Your task to perform on an android device: Go to Yahoo.com Image 0: 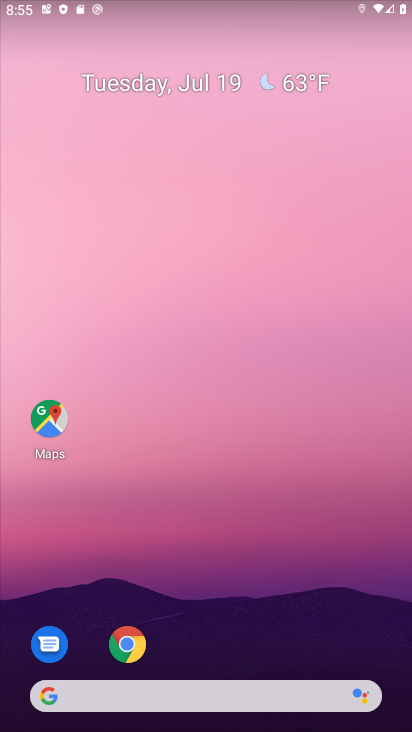
Step 0: drag from (147, 359) to (147, 282)
Your task to perform on an android device: Go to Yahoo.com Image 1: 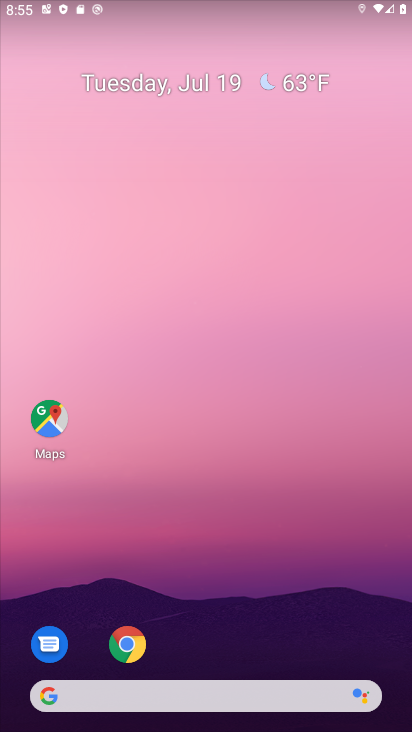
Step 1: drag from (204, 696) to (118, 132)
Your task to perform on an android device: Go to Yahoo.com Image 2: 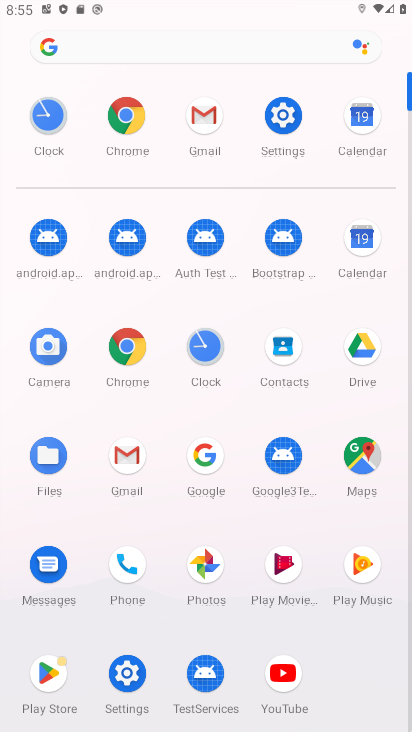
Step 2: click (127, 109)
Your task to perform on an android device: Go to Yahoo.com Image 3: 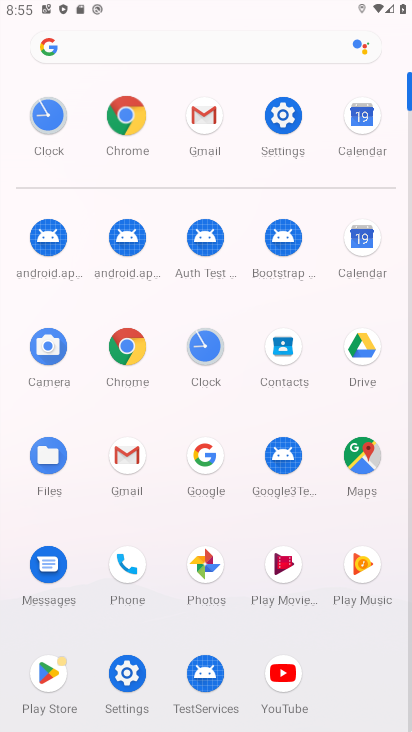
Step 3: click (127, 107)
Your task to perform on an android device: Go to Yahoo.com Image 4: 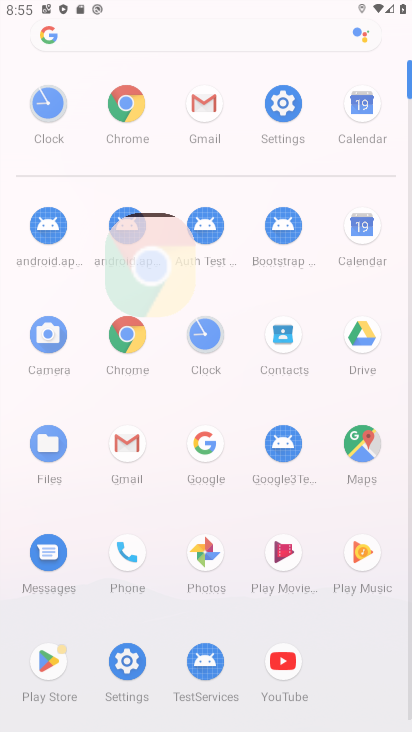
Step 4: click (127, 107)
Your task to perform on an android device: Go to Yahoo.com Image 5: 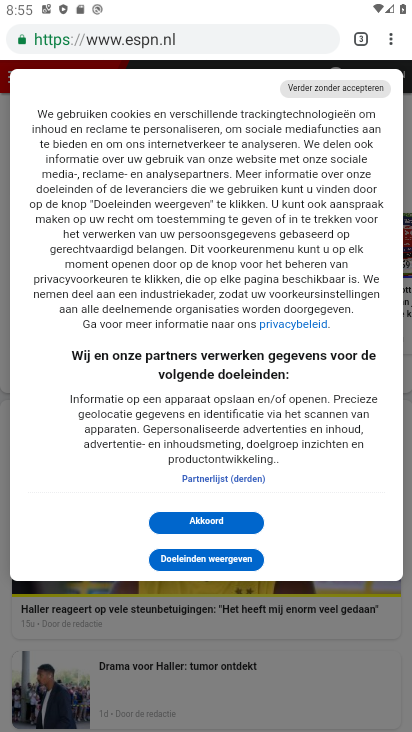
Step 5: drag from (387, 41) to (249, 75)
Your task to perform on an android device: Go to Yahoo.com Image 6: 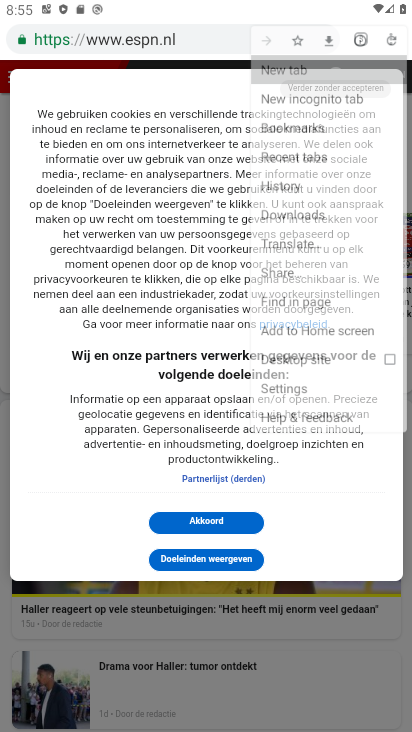
Step 6: click (261, 75)
Your task to perform on an android device: Go to Yahoo.com Image 7: 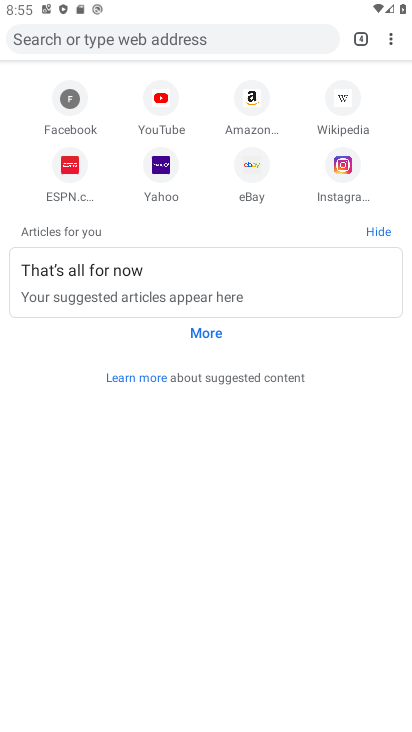
Step 7: click (171, 161)
Your task to perform on an android device: Go to Yahoo.com Image 8: 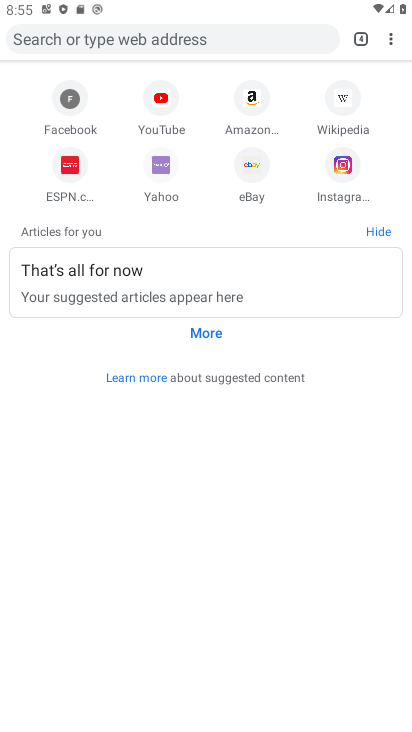
Step 8: click (170, 162)
Your task to perform on an android device: Go to Yahoo.com Image 9: 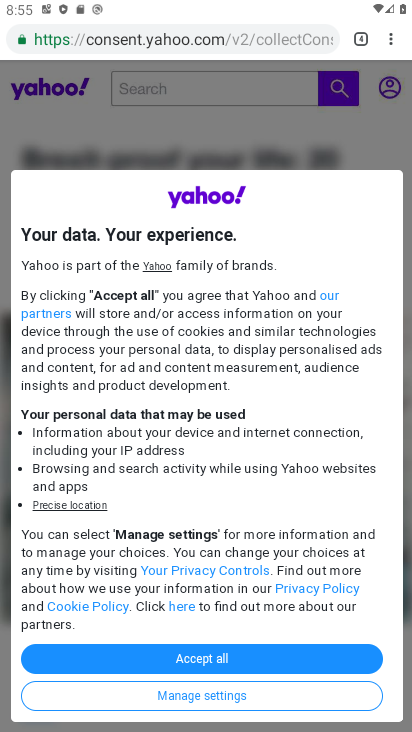
Step 9: task complete